Your task to perform on an android device: Open Yahoo.com Image 0: 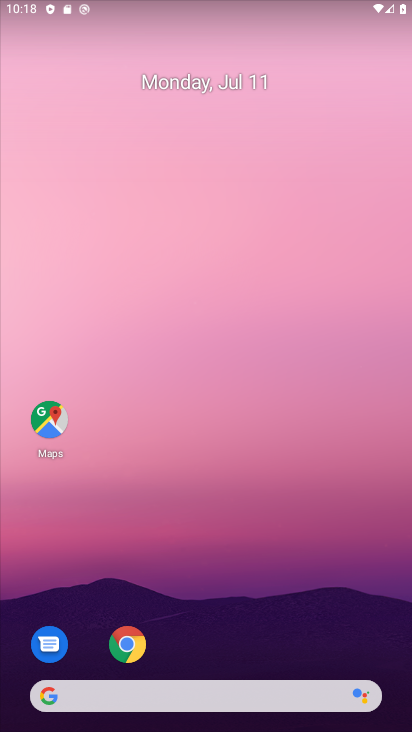
Step 0: drag from (195, 593) to (154, 330)
Your task to perform on an android device: Open Yahoo.com Image 1: 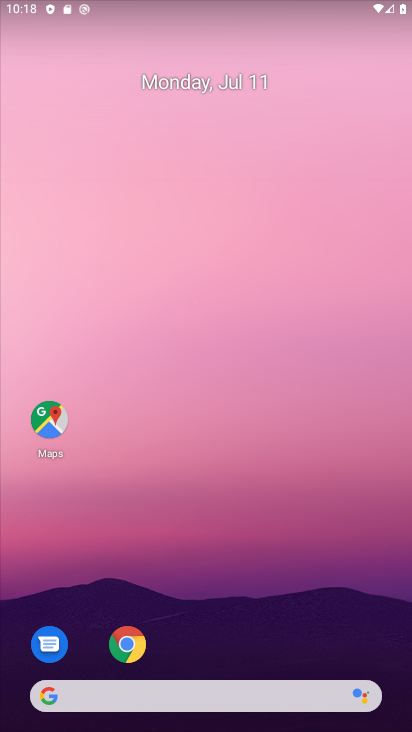
Step 1: drag from (284, 672) to (219, 244)
Your task to perform on an android device: Open Yahoo.com Image 2: 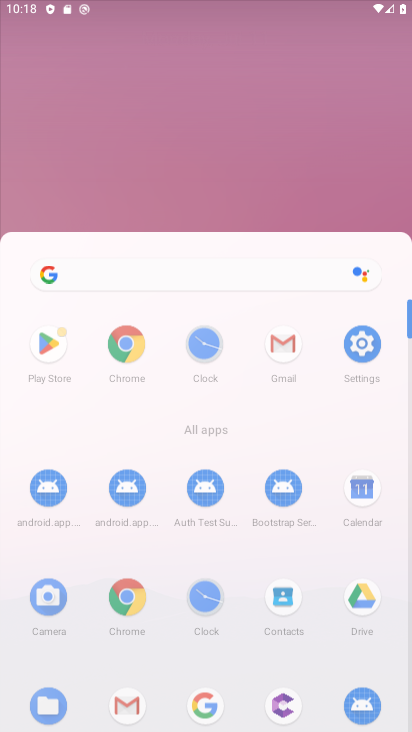
Step 2: drag from (289, 602) to (231, 192)
Your task to perform on an android device: Open Yahoo.com Image 3: 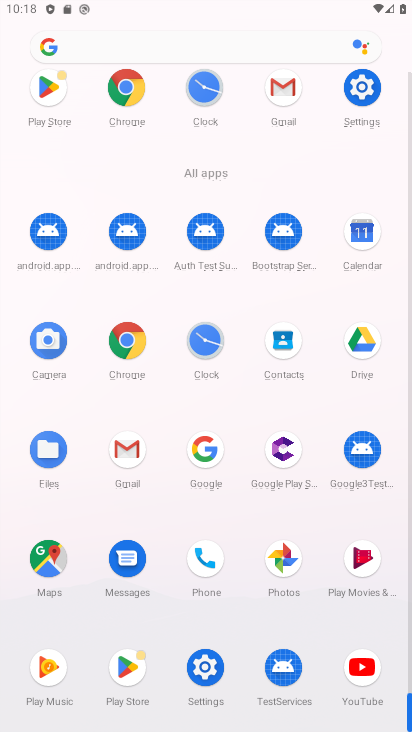
Step 3: click (127, 333)
Your task to perform on an android device: Open Yahoo.com Image 4: 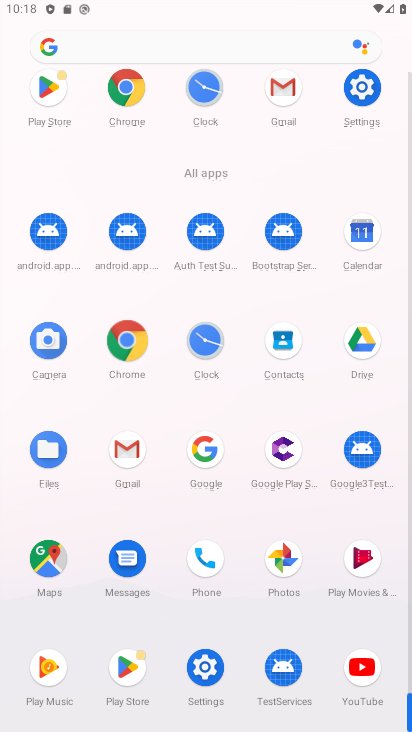
Step 4: click (127, 330)
Your task to perform on an android device: Open Yahoo.com Image 5: 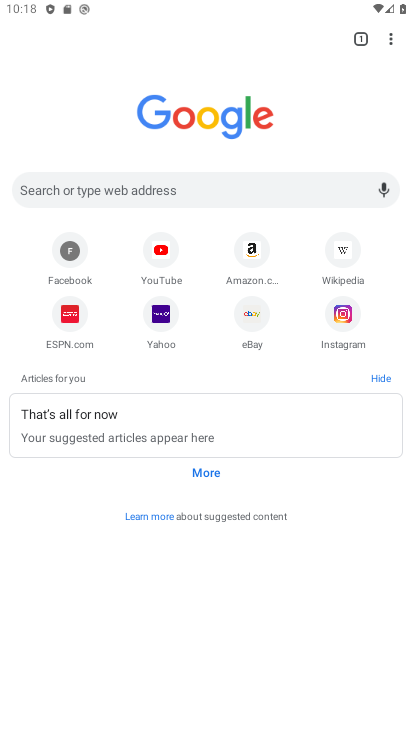
Step 5: click (162, 312)
Your task to perform on an android device: Open Yahoo.com Image 6: 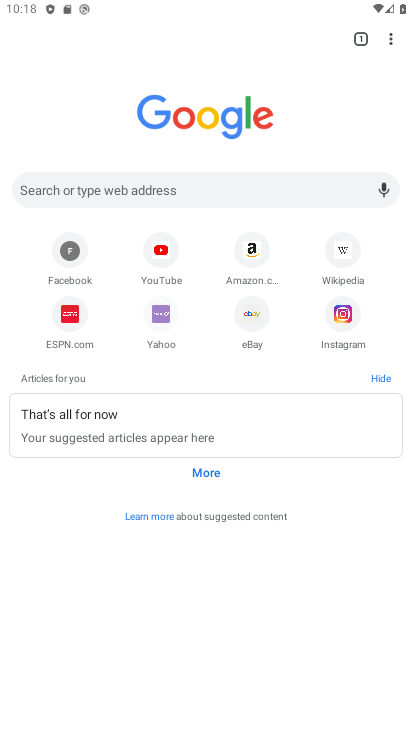
Step 6: click (161, 311)
Your task to perform on an android device: Open Yahoo.com Image 7: 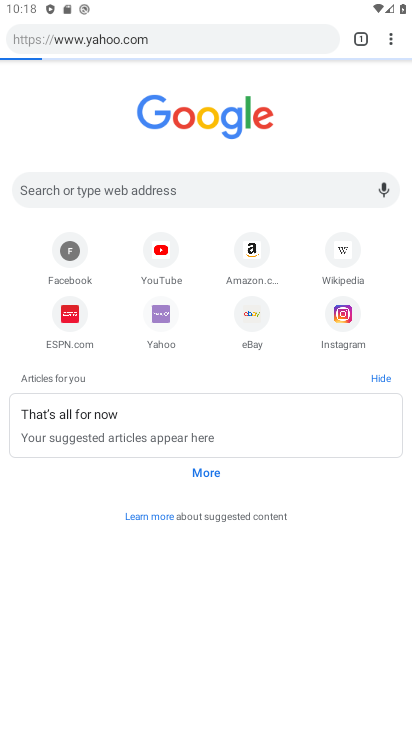
Step 7: click (161, 311)
Your task to perform on an android device: Open Yahoo.com Image 8: 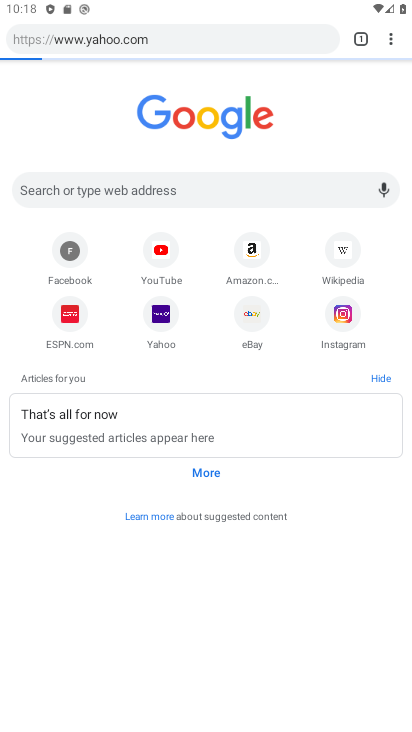
Step 8: click (160, 310)
Your task to perform on an android device: Open Yahoo.com Image 9: 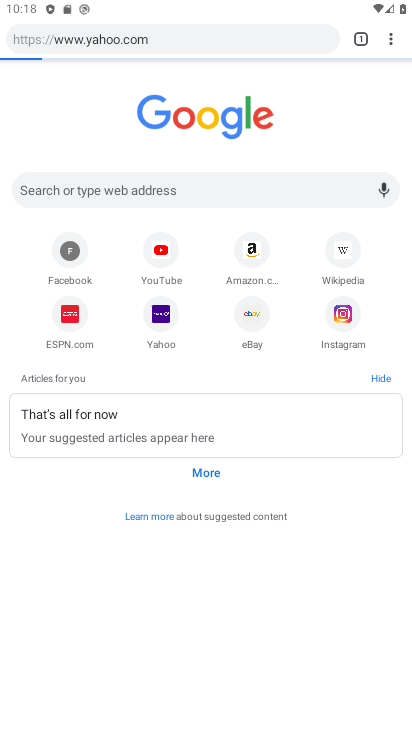
Step 9: click (158, 309)
Your task to perform on an android device: Open Yahoo.com Image 10: 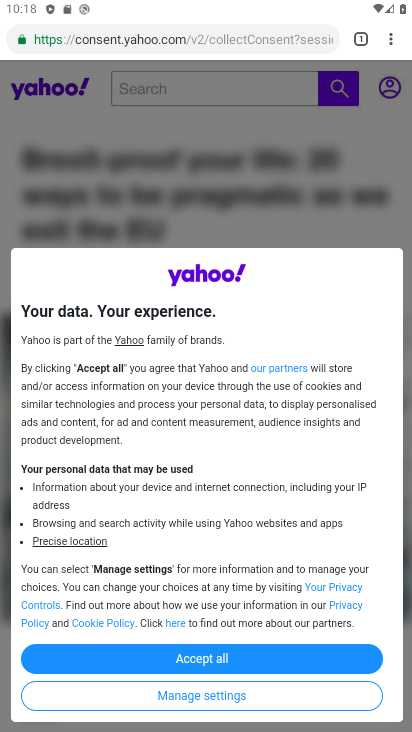
Step 10: task complete